Your task to perform on an android device: change notification settings in the gmail app Image 0: 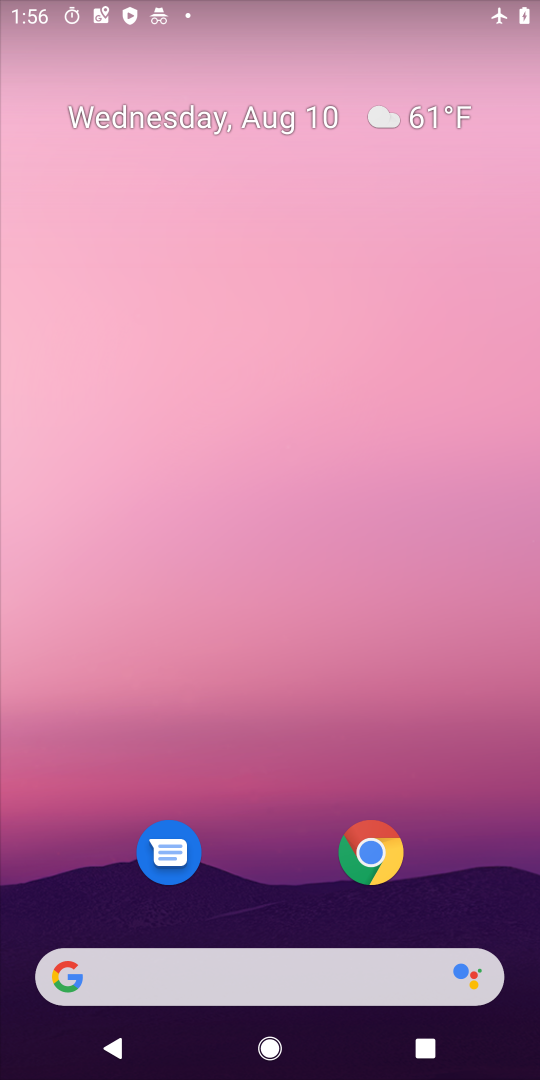
Step 0: press home button
Your task to perform on an android device: change notification settings in the gmail app Image 1: 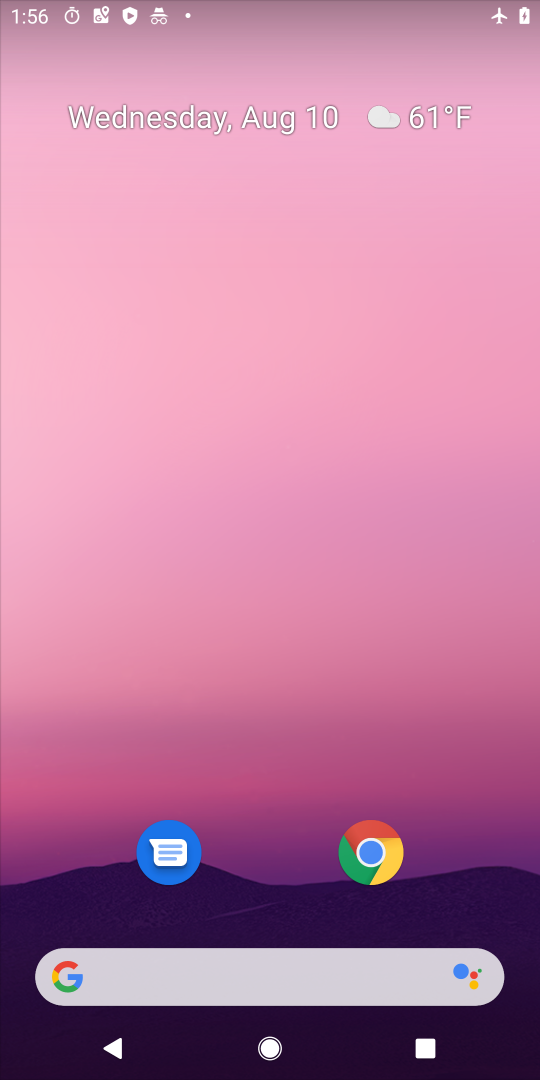
Step 1: drag from (248, 777) to (362, 148)
Your task to perform on an android device: change notification settings in the gmail app Image 2: 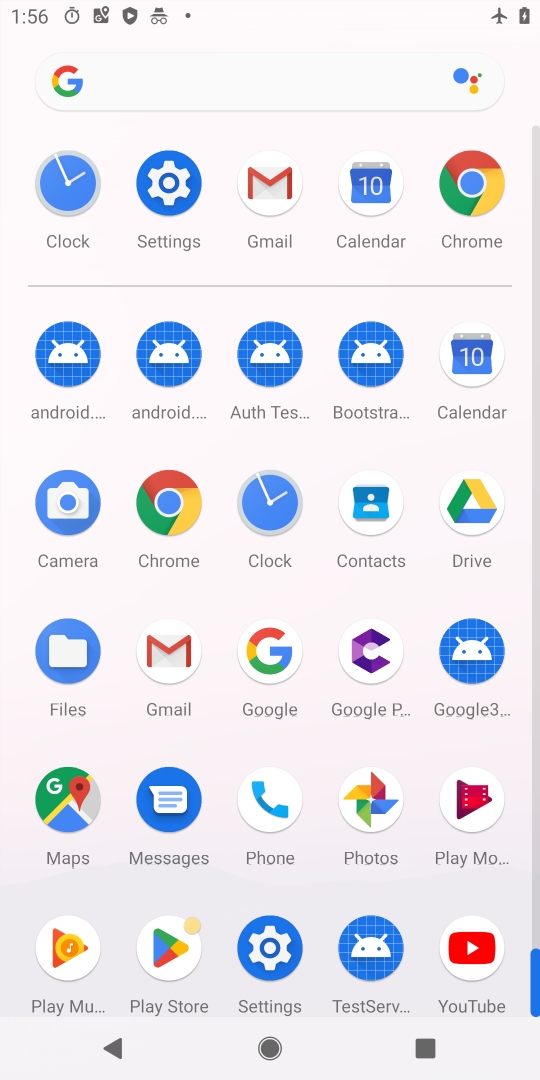
Step 2: click (278, 952)
Your task to perform on an android device: change notification settings in the gmail app Image 3: 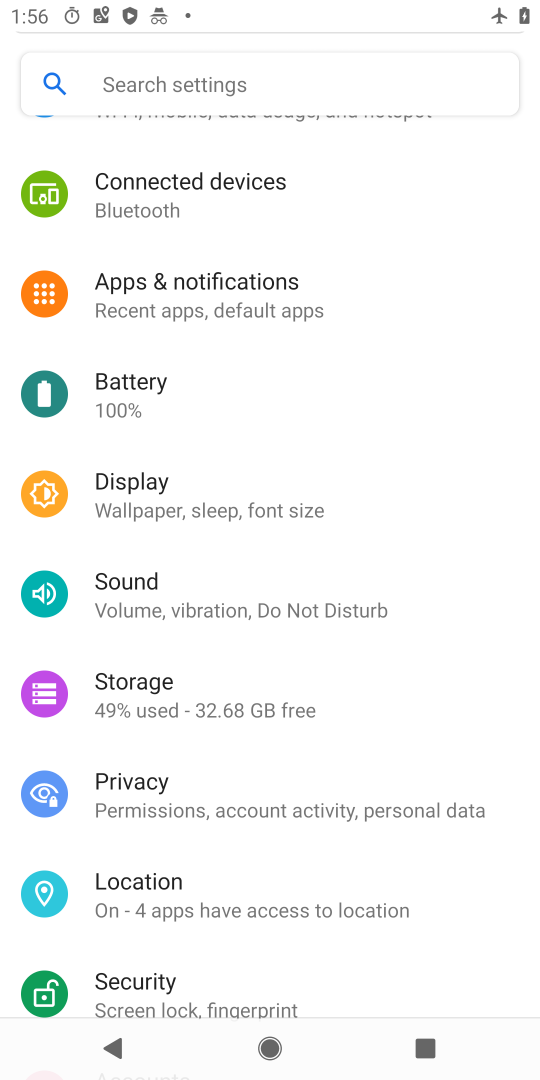
Step 3: press home button
Your task to perform on an android device: change notification settings in the gmail app Image 4: 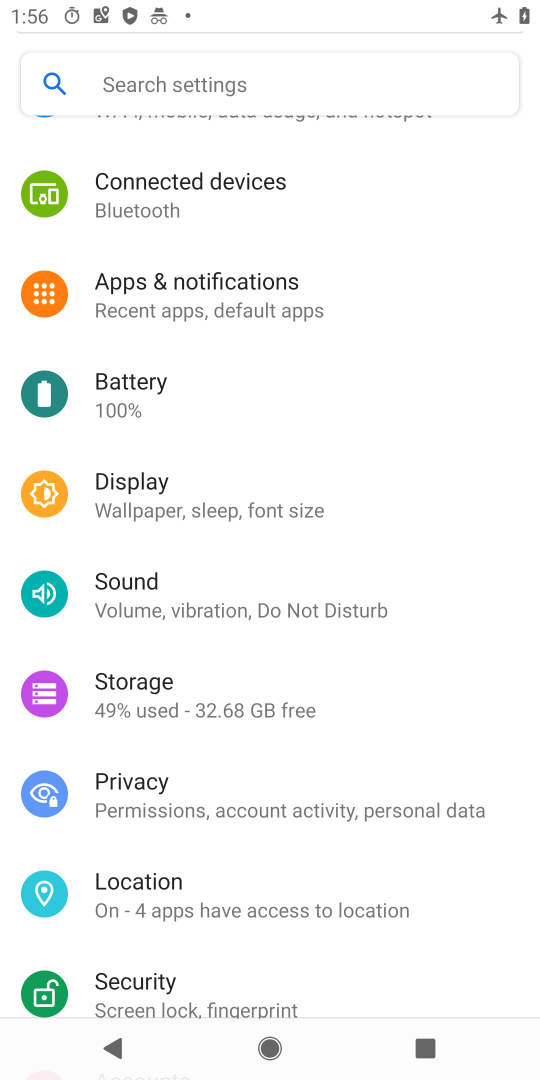
Step 4: press home button
Your task to perform on an android device: change notification settings in the gmail app Image 5: 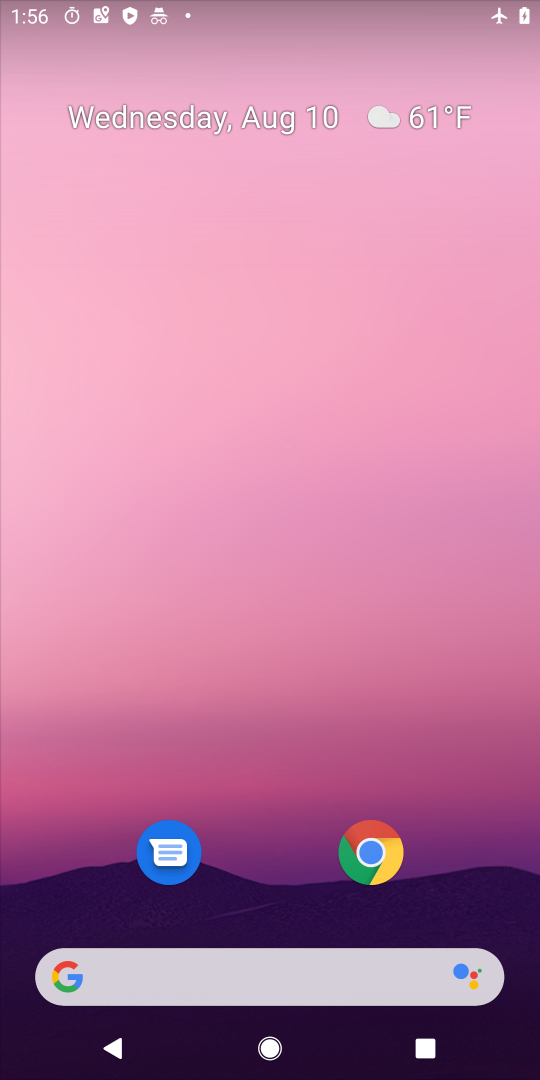
Step 5: drag from (264, 881) to (406, 110)
Your task to perform on an android device: change notification settings in the gmail app Image 6: 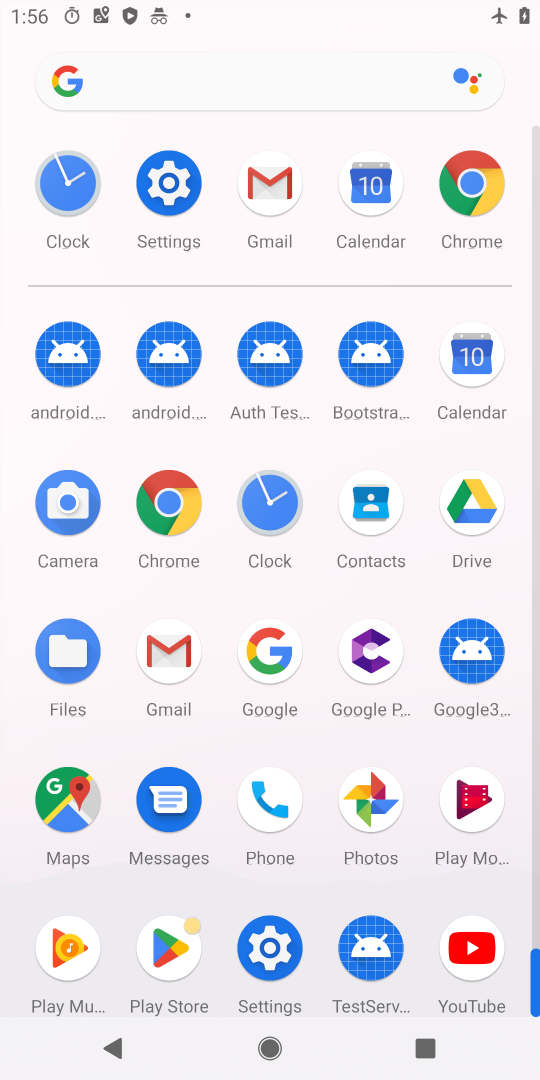
Step 6: click (160, 650)
Your task to perform on an android device: change notification settings in the gmail app Image 7: 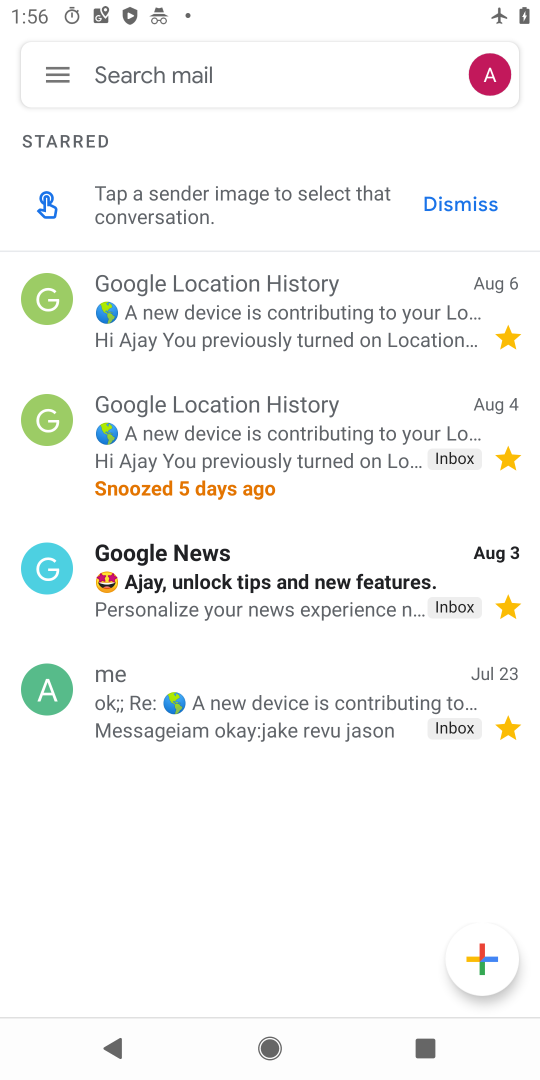
Step 7: click (52, 66)
Your task to perform on an android device: change notification settings in the gmail app Image 8: 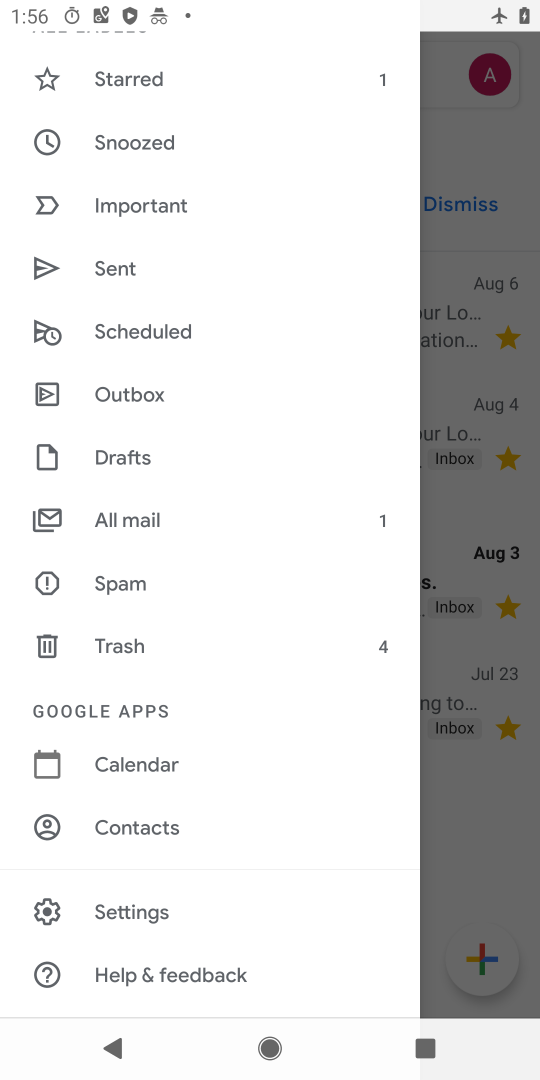
Step 8: click (111, 920)
Your task to perform on an android device: change notification settings in the gmail app Image 9: 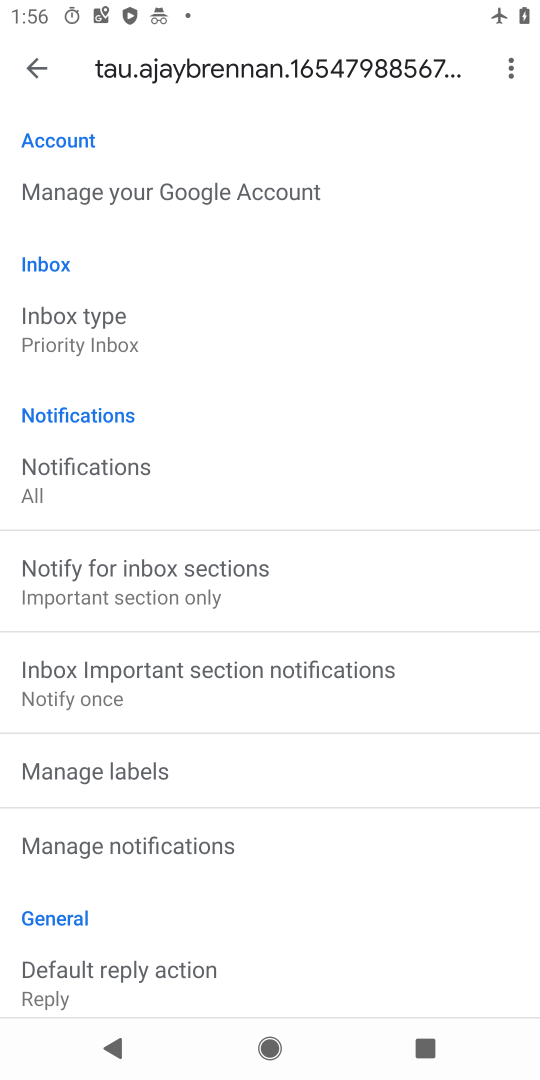
Step 9: click (207, 841)
Your task to perform on an android device: change notification settings in the gmail app Image 10: 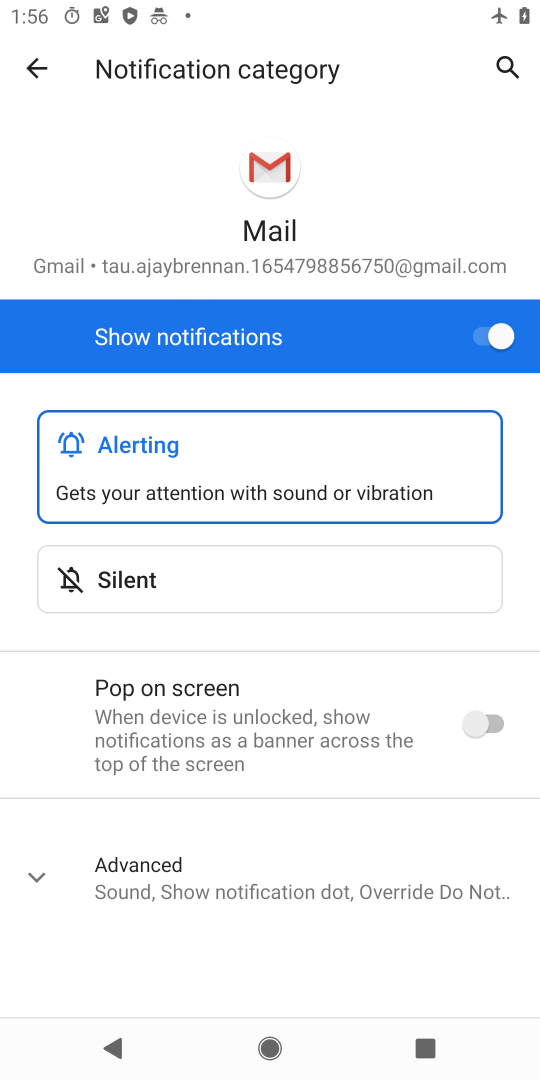
Step 10: click (473, 328)
Your task to perform on an android device: change notification settings in the gmail app Image 11: 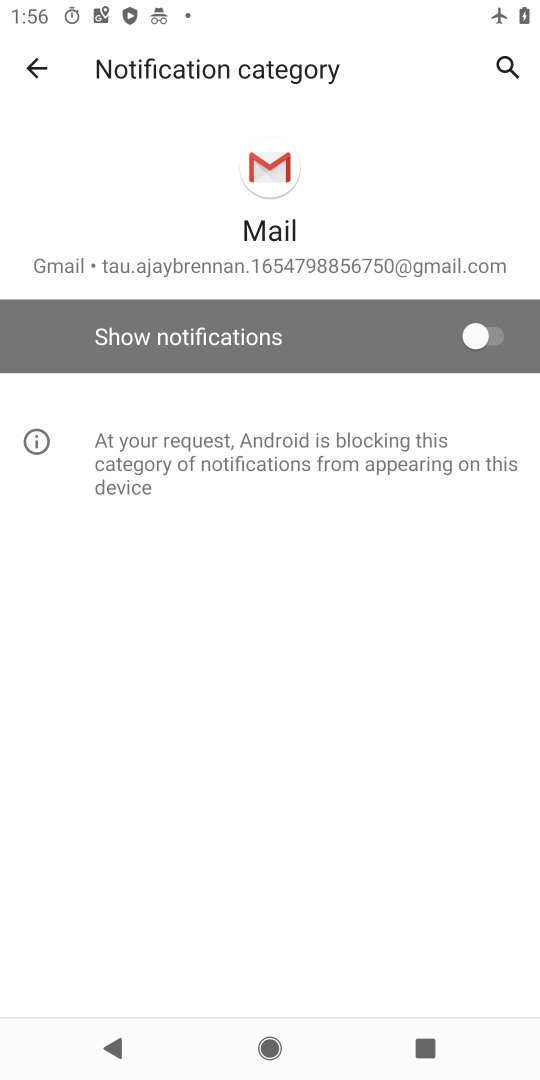
Step 11: task complete